Your task to perform on an android device: Search for macbook on costco.com, select the first entry, add it to the cart, then select checkout. Image 0: 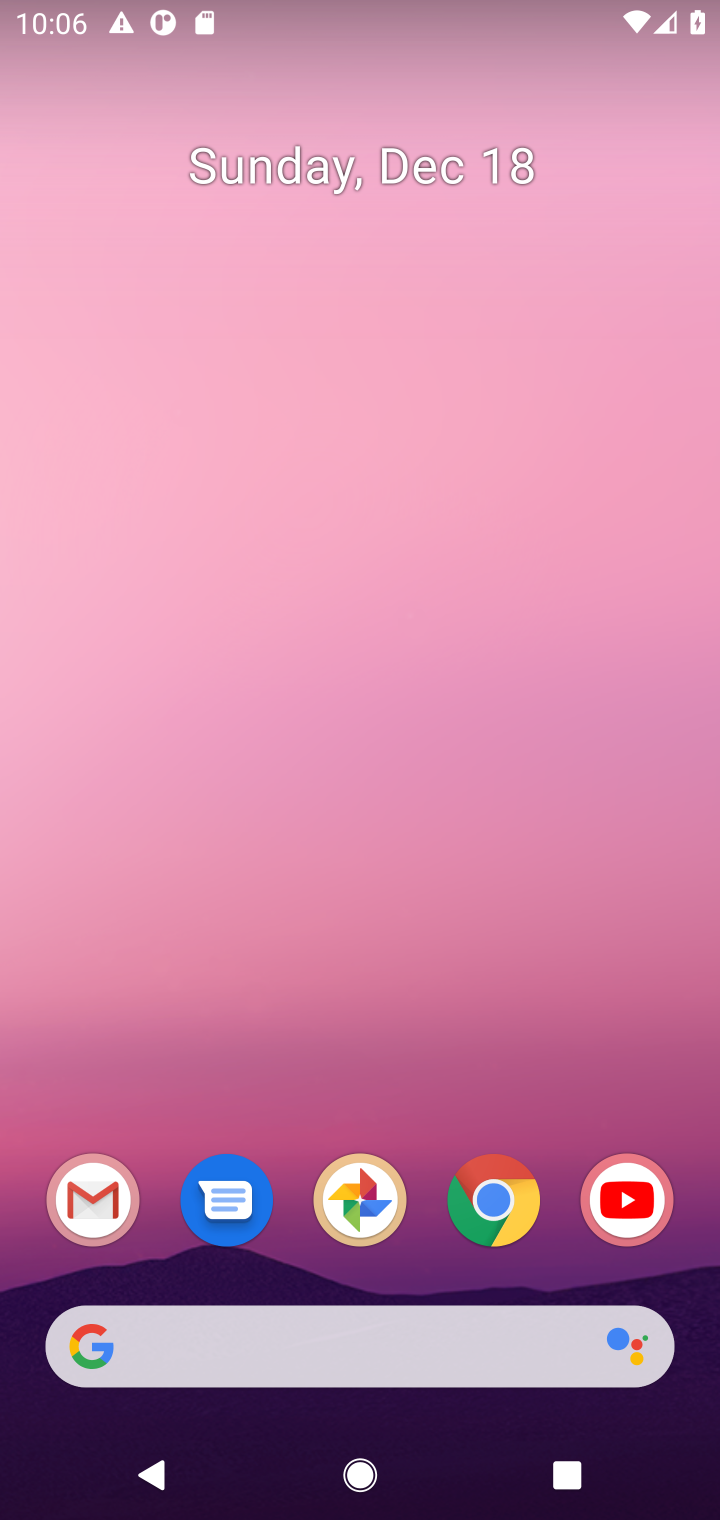
Step 0: click (490, 1219)
Your task to perform on an android device: Search for macbook on costco.com, select the first entry, add it to the cart, then select checkout. Image 1: 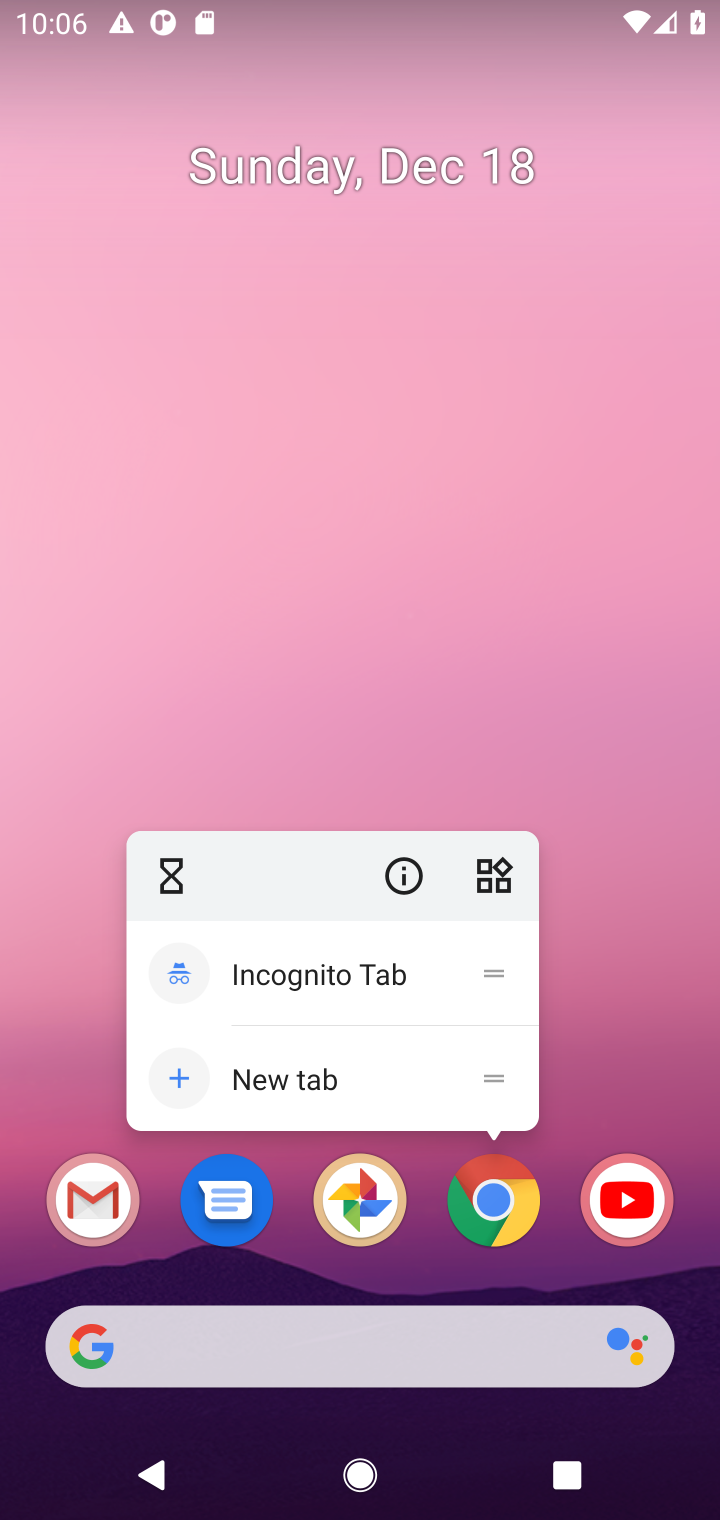
Step 1: click (492, 1219)
Your task to perform on an android device: Search for macbook on costco.com, select the first entry, add it to the cart, then select checkout. Image 2: 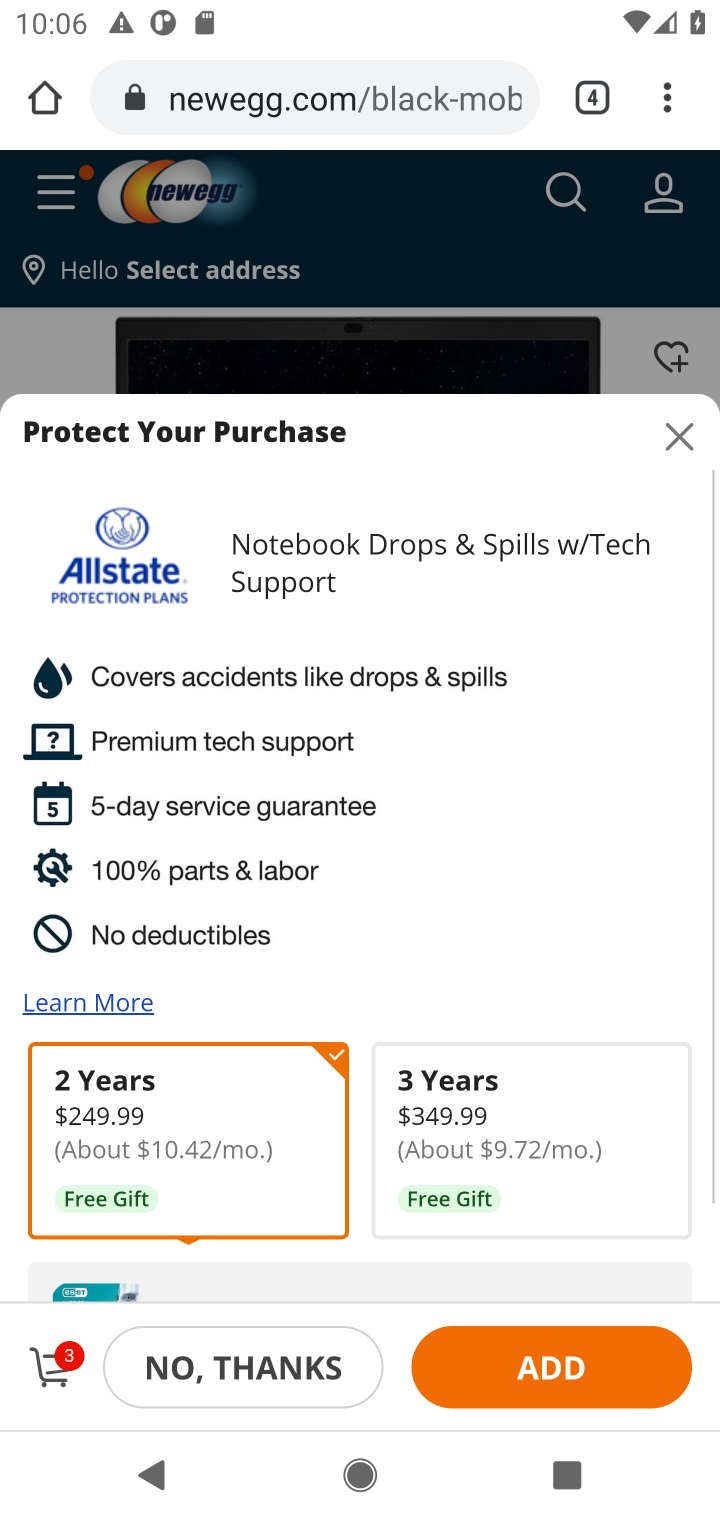
Step 2: click (285, 91)
Your task to perform on an android device: Search for macbook on costco.com, select the first entry, add it to the cart, then select checkout. Image 3: 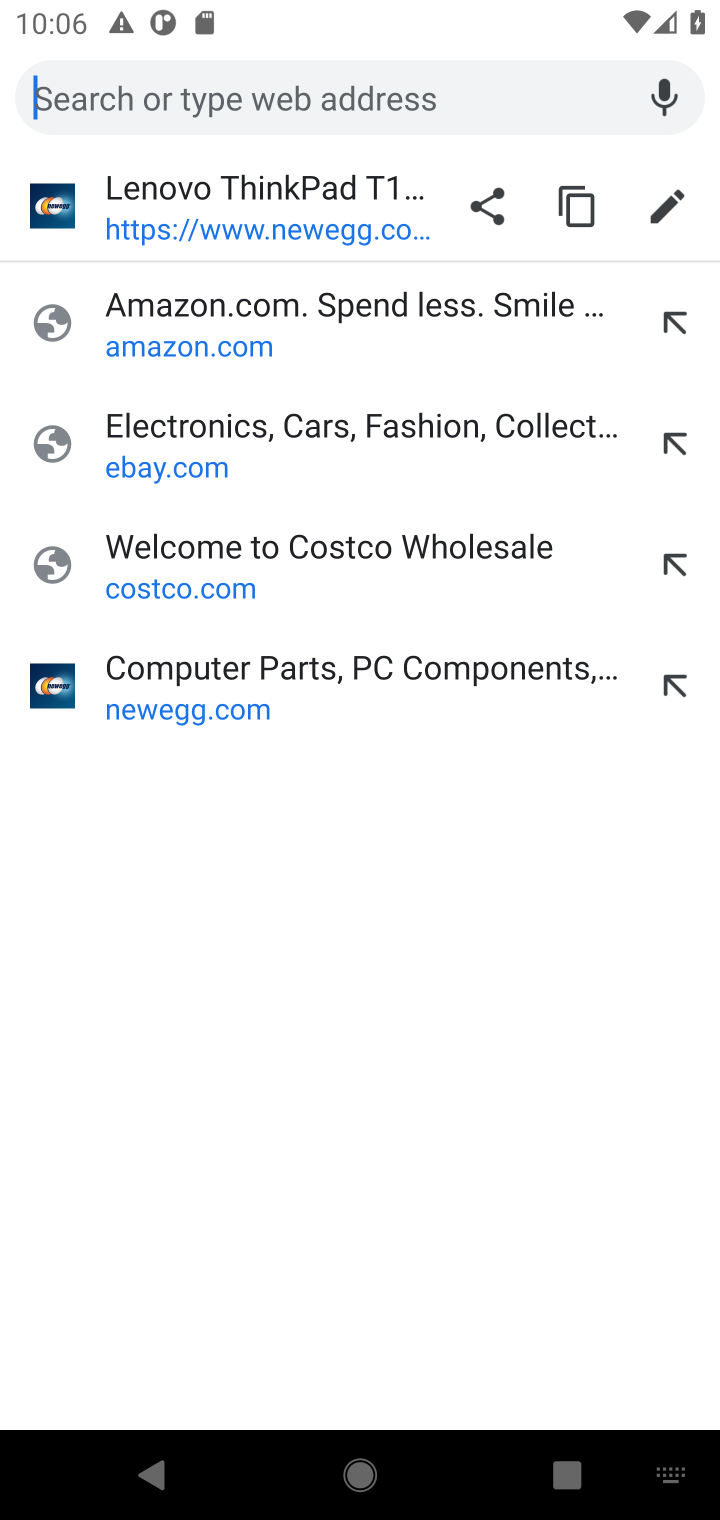
Step 3: click (144, 560)
Your task to perform on an android device: Search for macbook on costco.com, select the first entry, add it to the cart, then select checkout. Image 4: 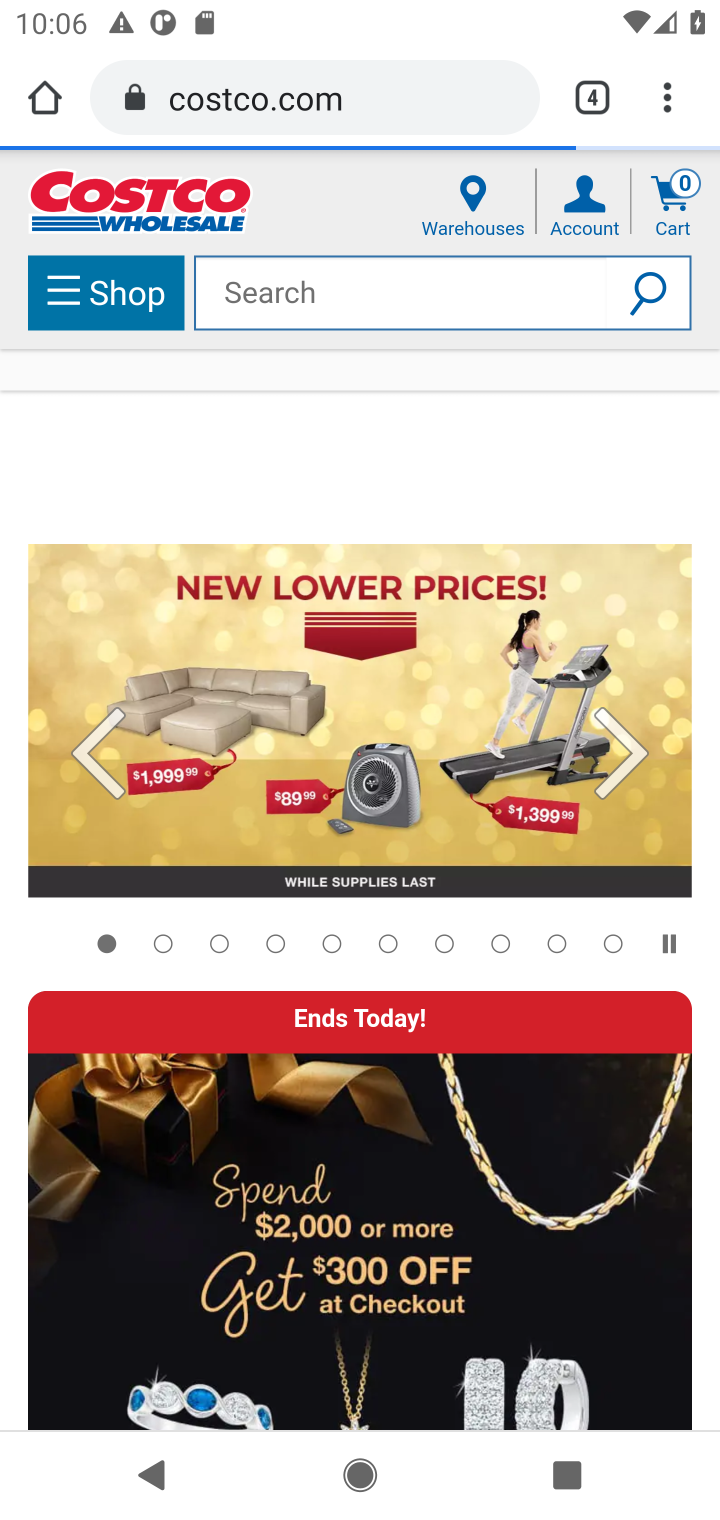
Step 4: click (288, 305)
Your task to perform on an android device: Search for macbook on costco.com, select the first entry, add it to the cart, then select checkout. Image 5: 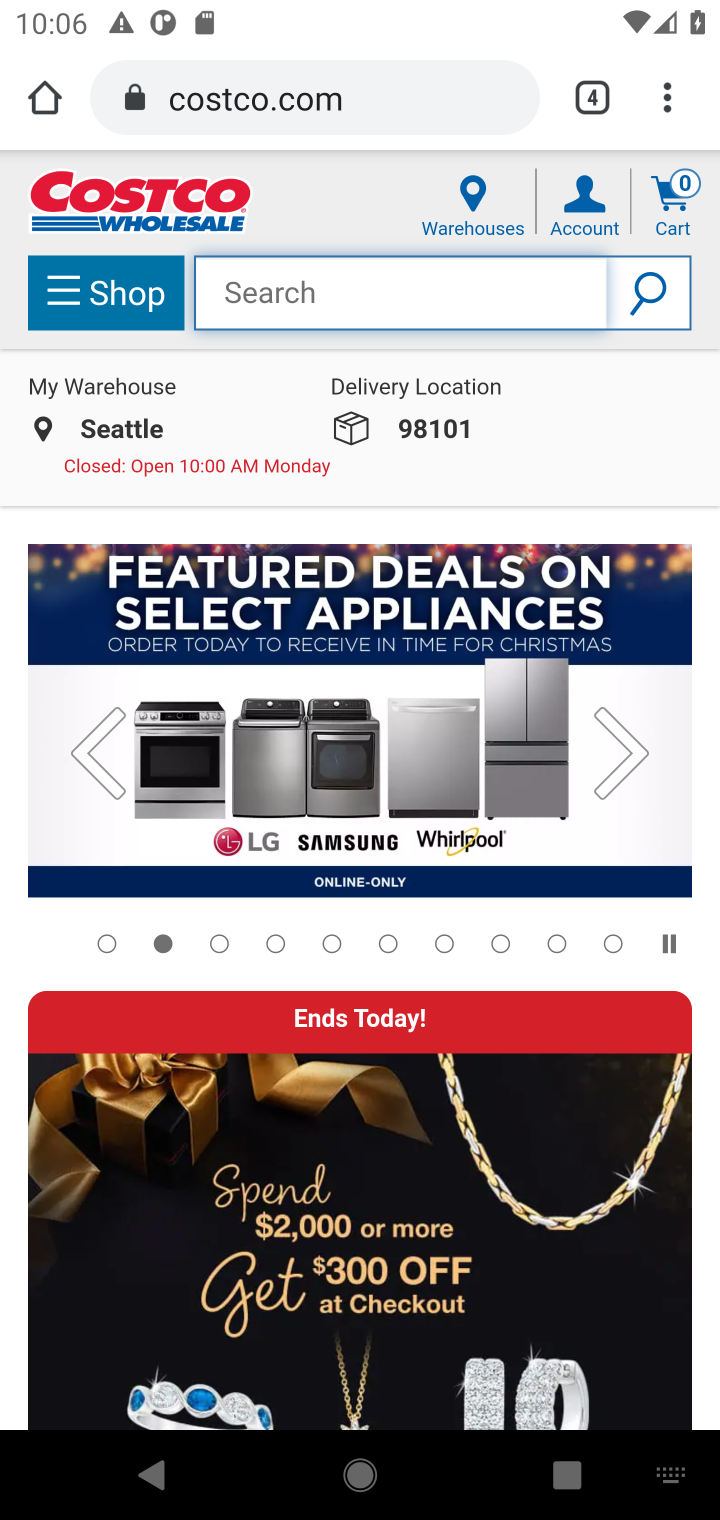
Step 5: type "macbook"
Your task to perform on an android device: Search for macbook on costco.com, select the first entry, add it to the cart, then select checkout. Image 6: 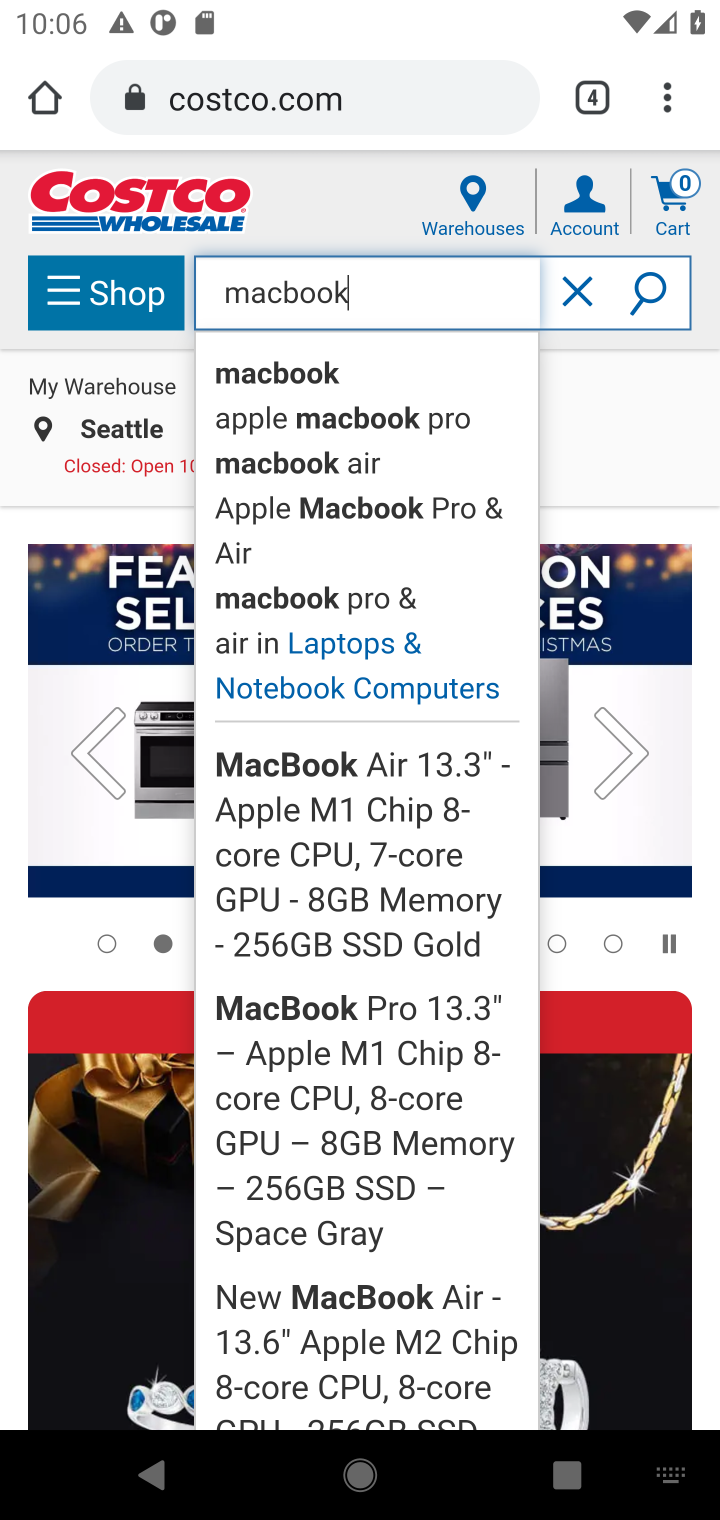
Step 6: click (652, 288)
Your task to perform on an android device: Search for macbook on costco.com, select the first entry, add it to the cart, then select checkout. Image 7: 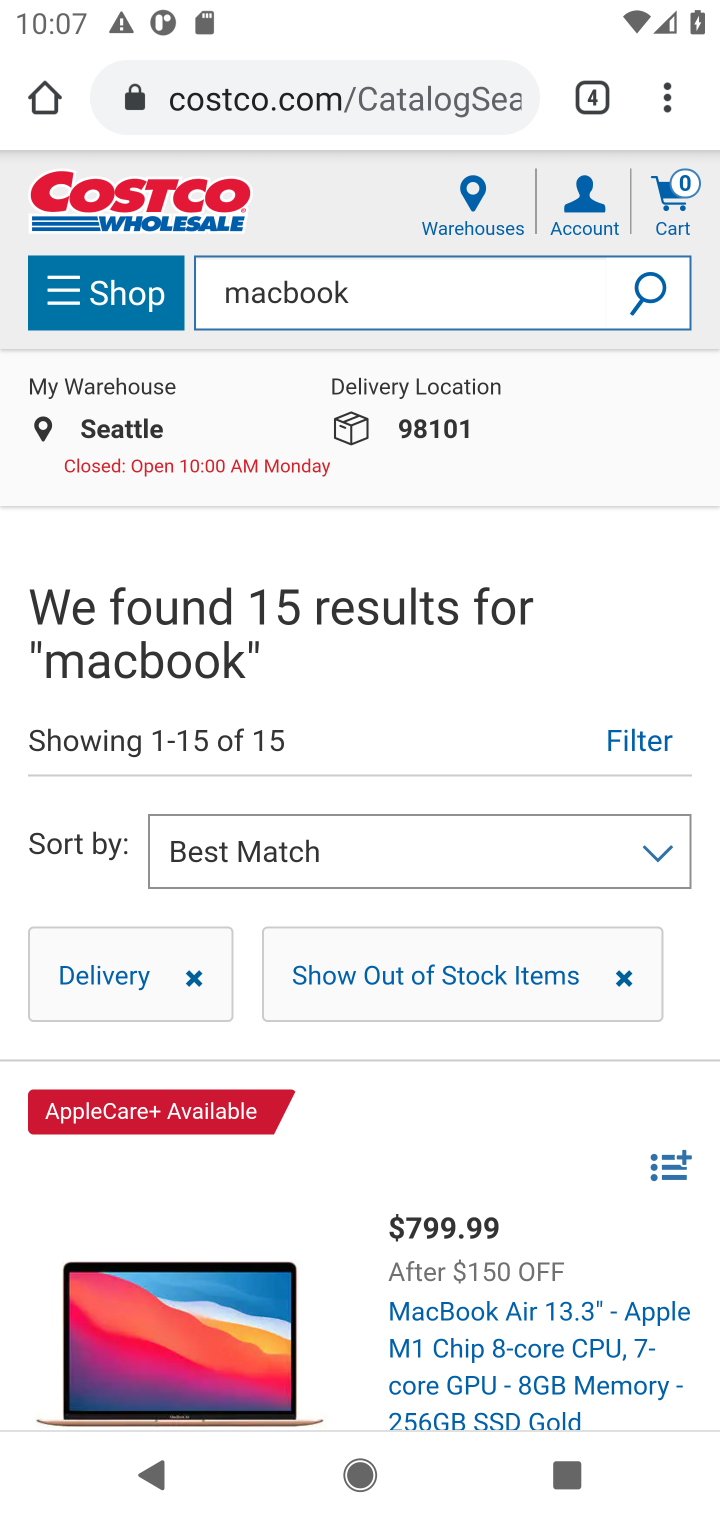
Step 7: drag from (288, 937) to (303, 662)
Your task to perform on an android device: Search for macbook on costco.com, select the first entry, add it to the cart, then select checkout. Image 8: 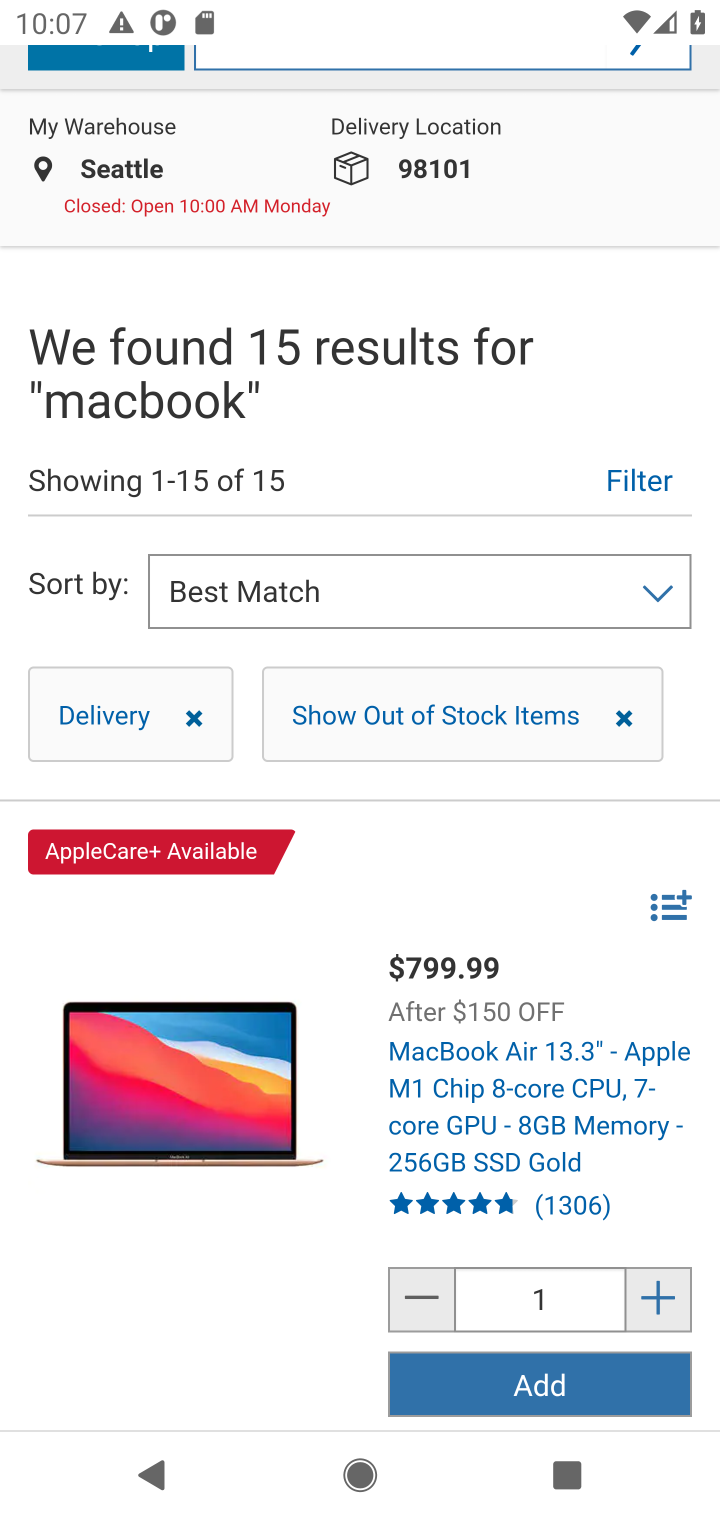
Step 8: click (563, 1394)
Your task to perform on an android device: Search for macbook on costco.com, select the first entry, add it to the cart, then select checkout. Image 9: 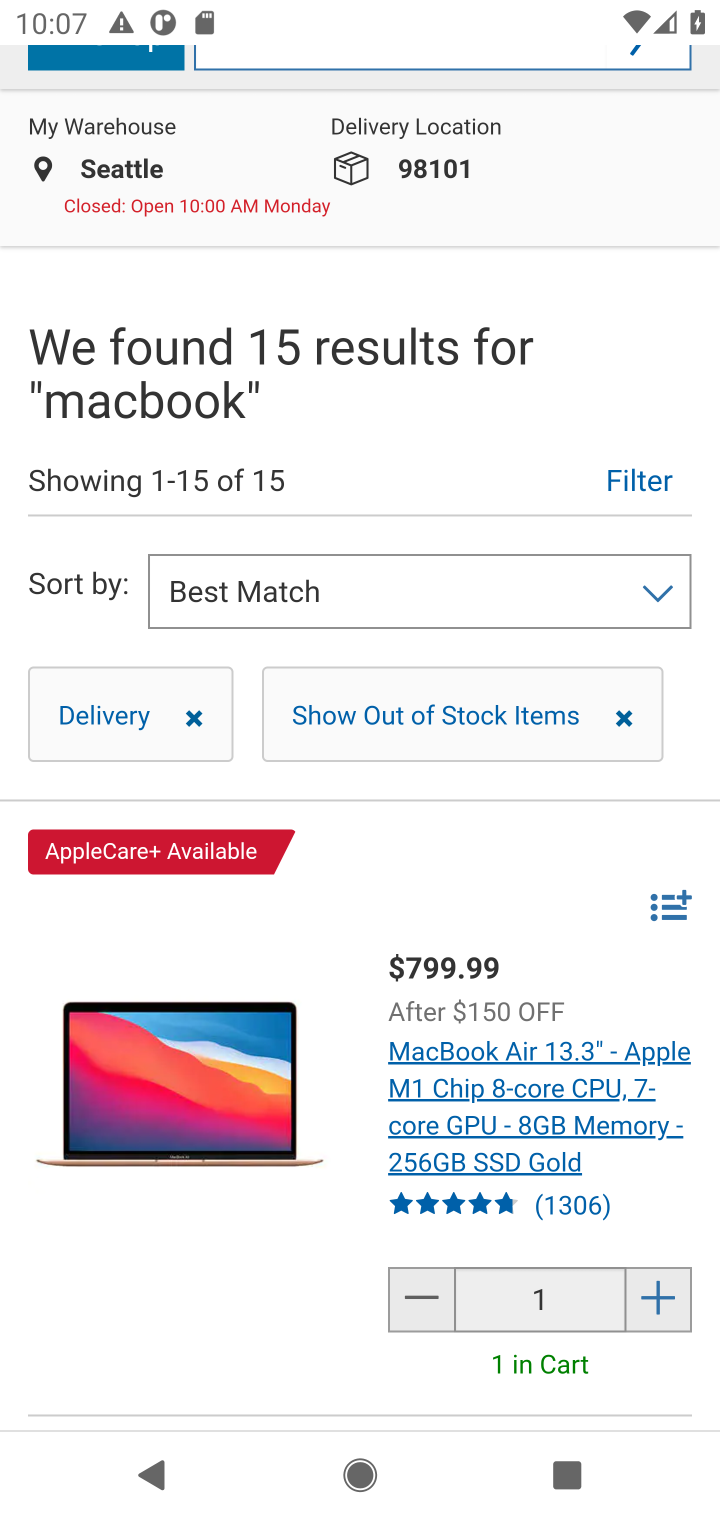
Step 9: drag from (468, 321) to (328, 979)
Your task to perform on an android device: Search for macbook on costco.com, select the first entry, add it to the cart, then select checkout. Image 10: 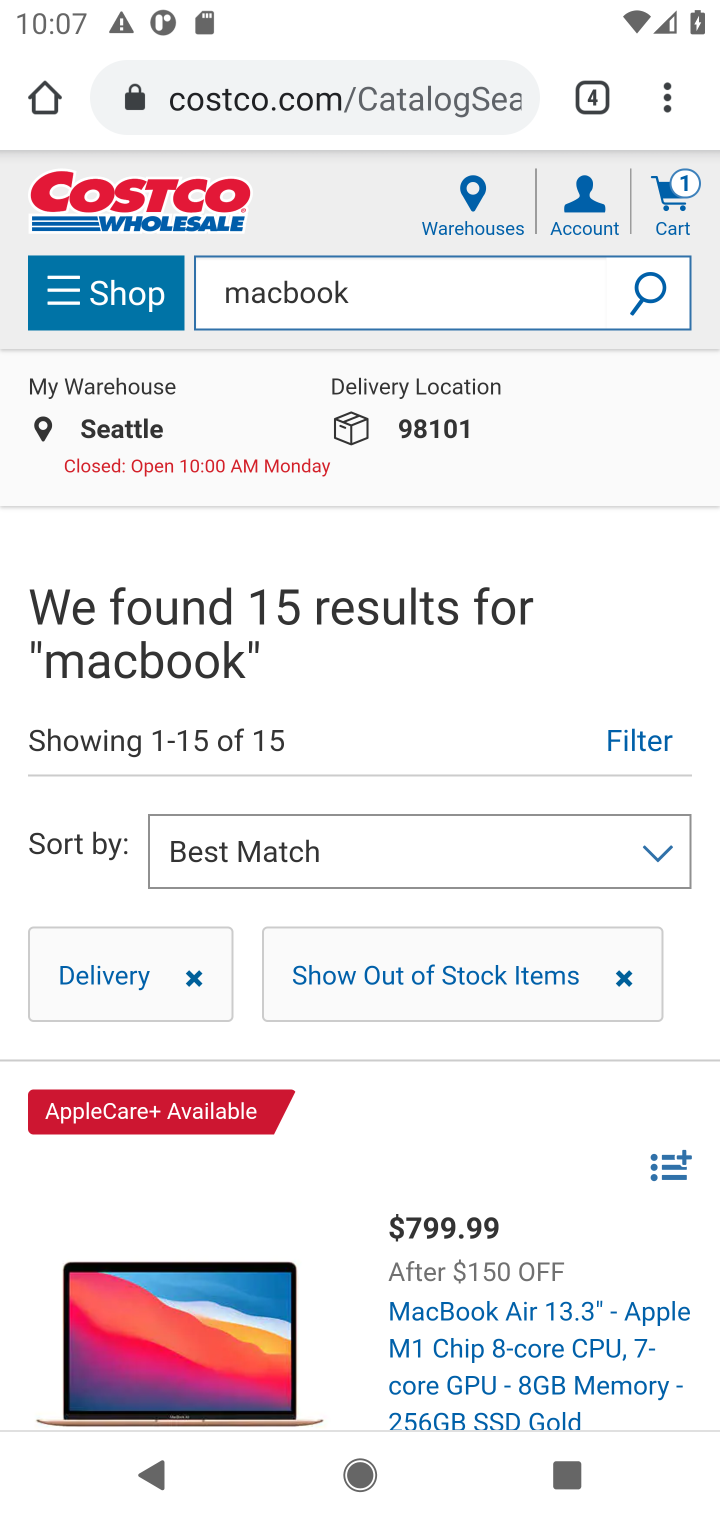
Step 10: click (669, 207)
Your task to perform on an android device: Search for macbook on costco.com, select the first entry, add it to the cart, then select checkout. Image 11: 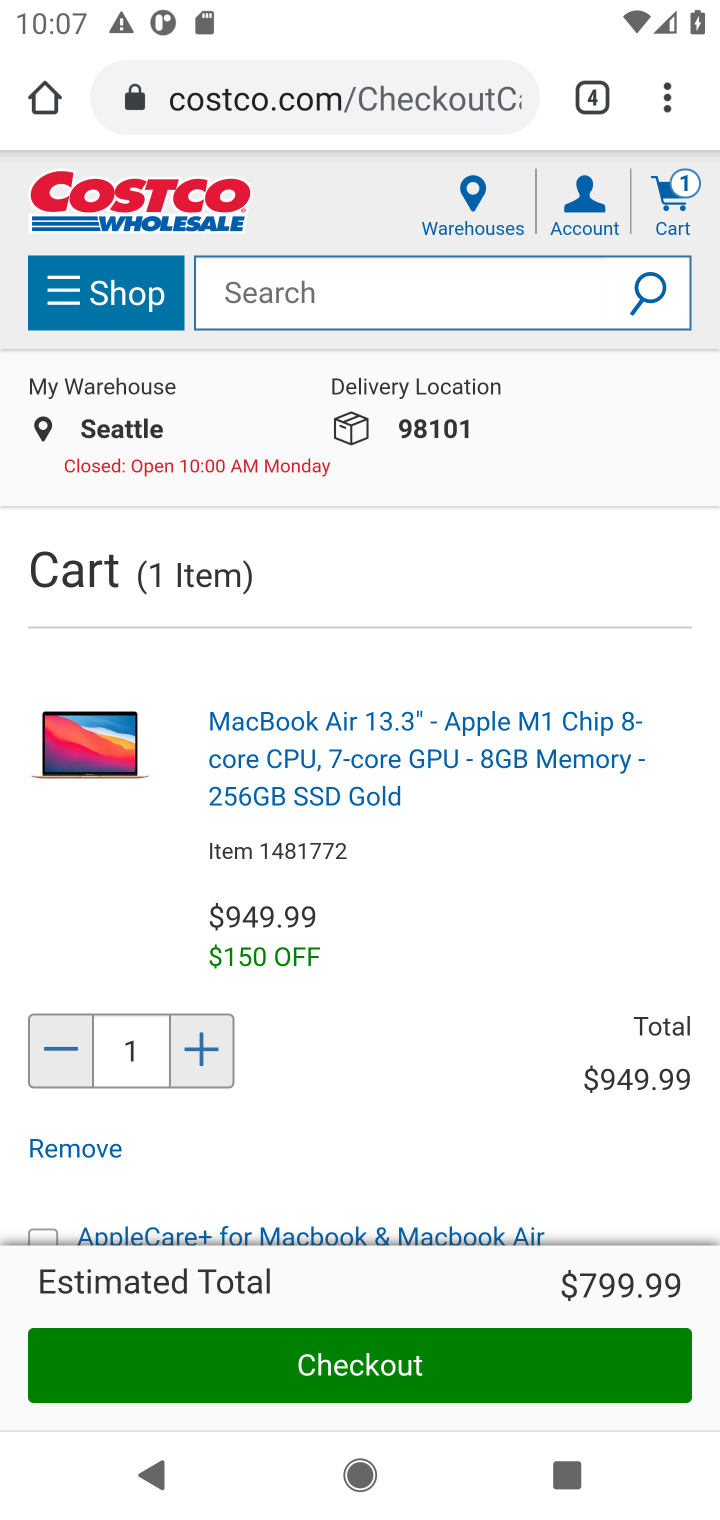
Step 11: click (348, 1366)
Your task to perform on an android device: Search for macbook on costco.com, select the first entry, add it to the cart, then select checkout. Image 12: 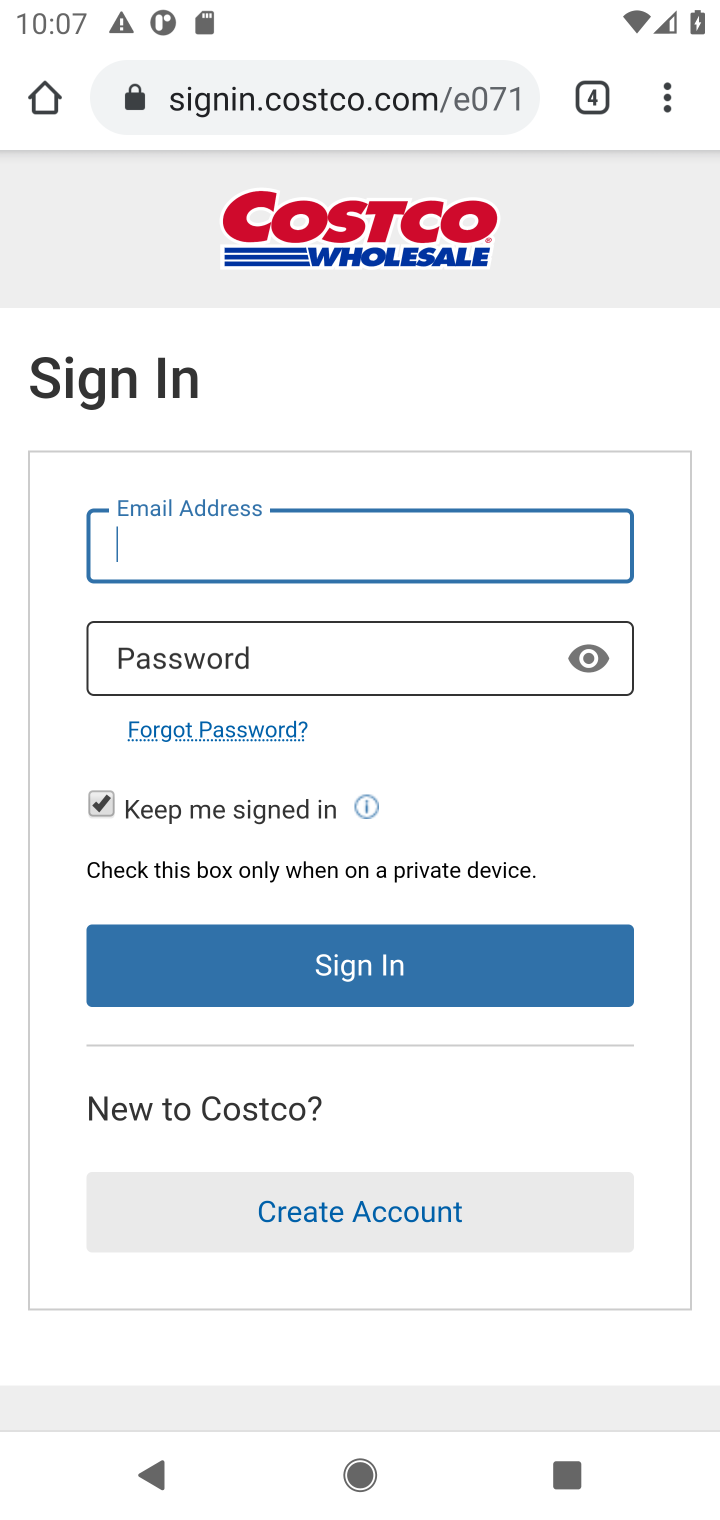
Step 12: task complete